Your task to perform on an android device: turn notification dots on Image 0: 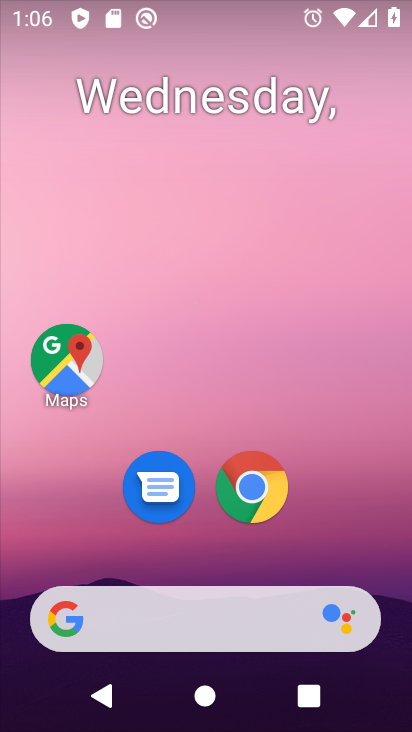
Step 0: drag from (389, 547) to (332, 86)
Your task to perform on an android device: turn notification dots on Image 1: 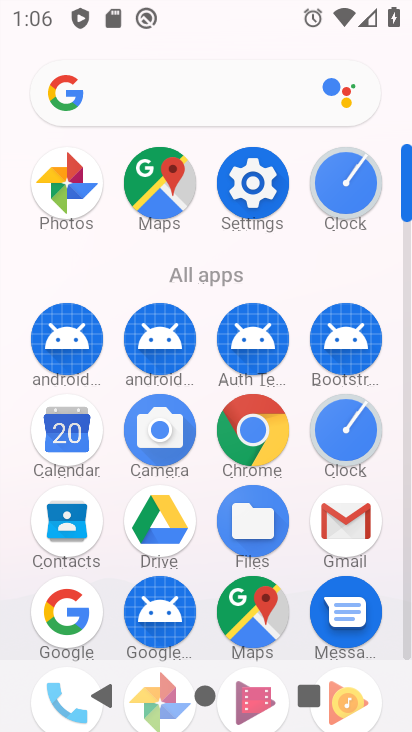
Step 1: click (263, 178)
Your task to perform on an android device: turn notification dots on Image 2: 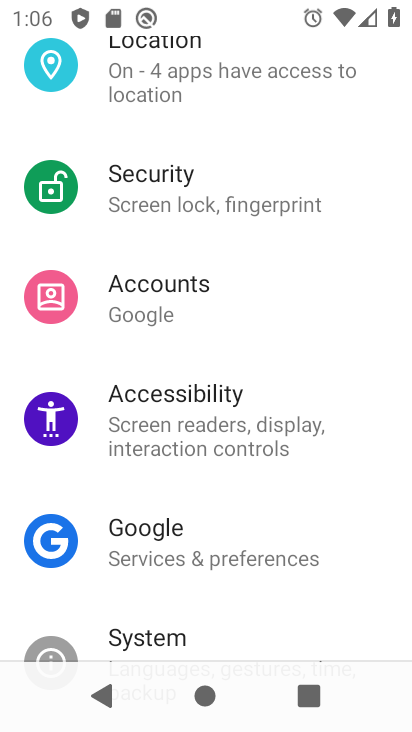
Step 2: drag from (289, 602) to (302, 709)
Your task to perform on an android device: turn notification dots on Image 3: 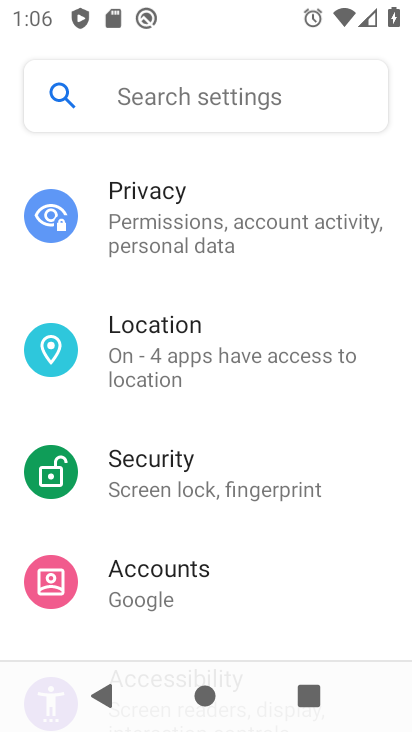
Step 3: drag from (349, 283) to (352, 613)
Your task to perform on an android device: turn notification dots on Image 4: 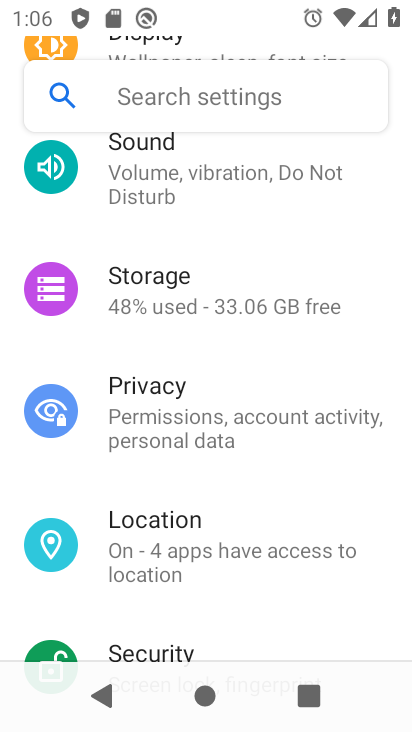
Step 4: drag from (310, 226) to (320, 597)
Your task to perform on an android device: turn notification dots on Image 5: 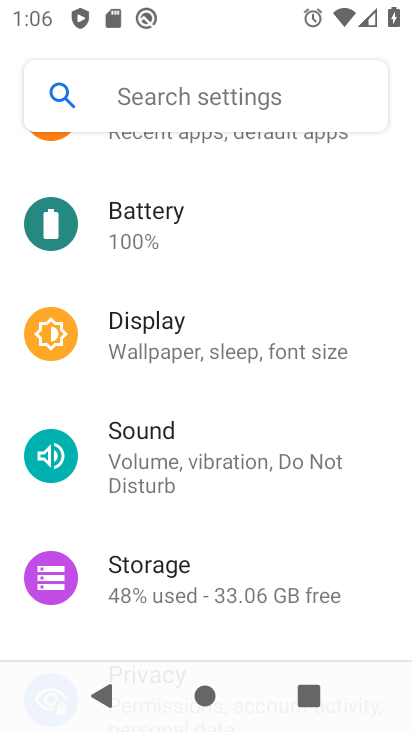
Step 5: drag from (256, 182) to (249, 622)
Your task to perform on an android device: turn notification dots on Image 6: 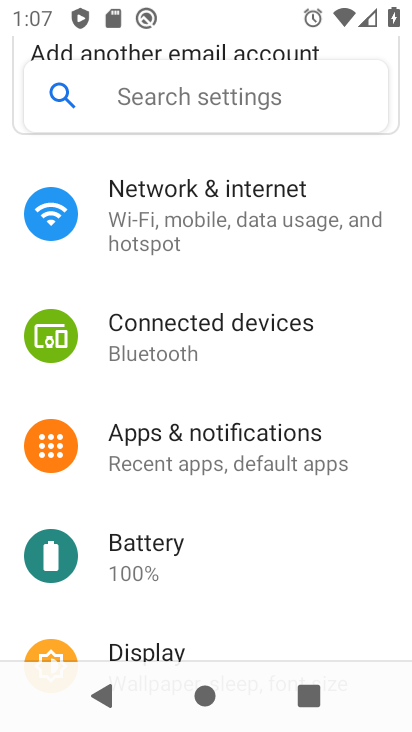
Step 6: click (256, 443)
Your task to perform on an android device: turn notification dots on Image 7: 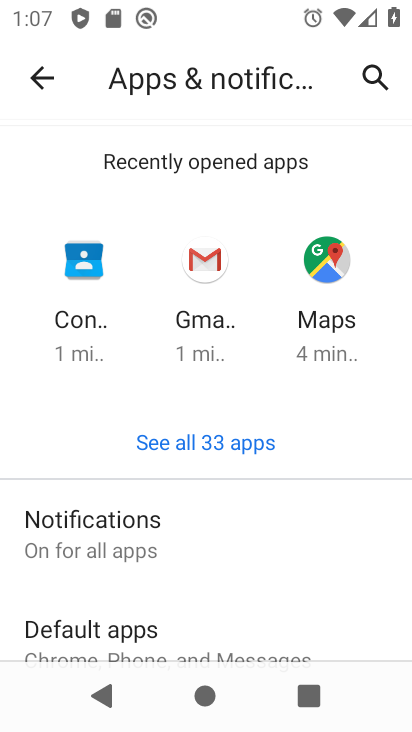
Step 7: click (226, 520)
Your task to perform on an android device: turn notification dots on Image 8: 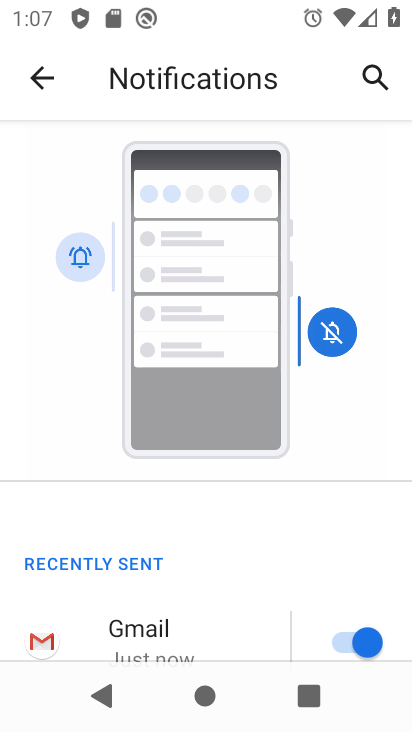
Step 8: drag from (234, 567) to (226, 237)
Your task to perform on an android device: turn notification dots on Image 9: 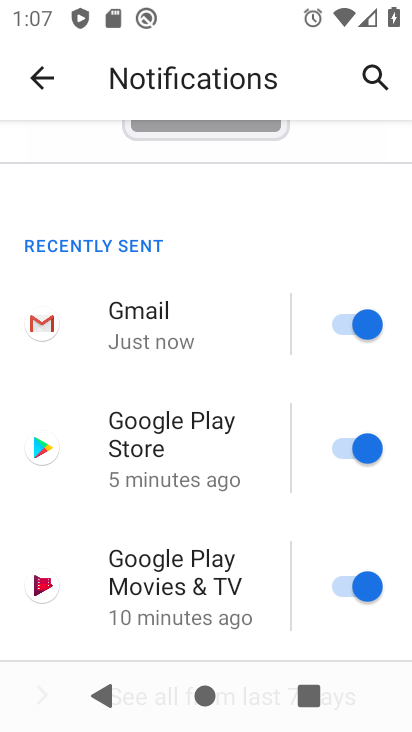
Step 9: drag from (256, 528) to (252, 156)
Your task to perform on an android device: turn notification dots on Image 10: 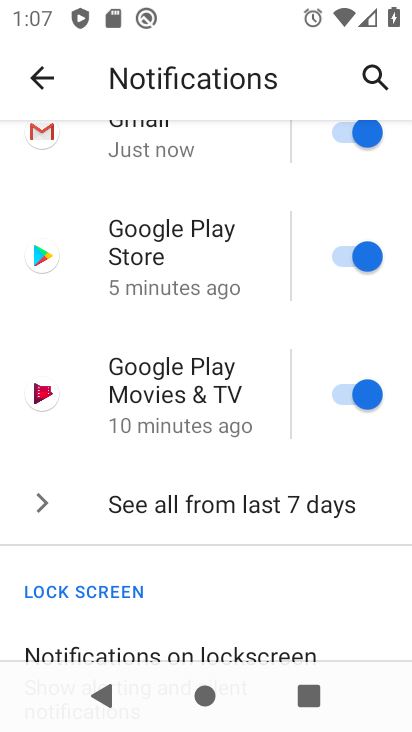
Step 10: drag from (244, 568) to (251, 182)
Your task to perform on an android device: turn notification dots on Image 11: 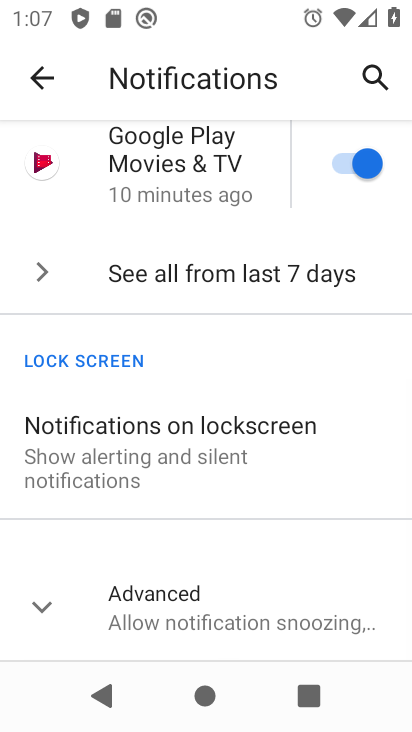
Step 11: click (281, 614)
Your task to perform on an android device: turn notification dots on Image 12: 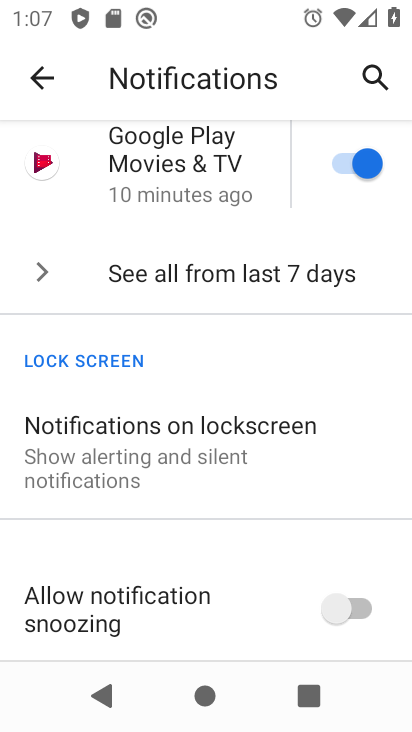
Step 12: task complete